Your task to perform on an android device: Search for pizza restaurants on Maps Image 0: 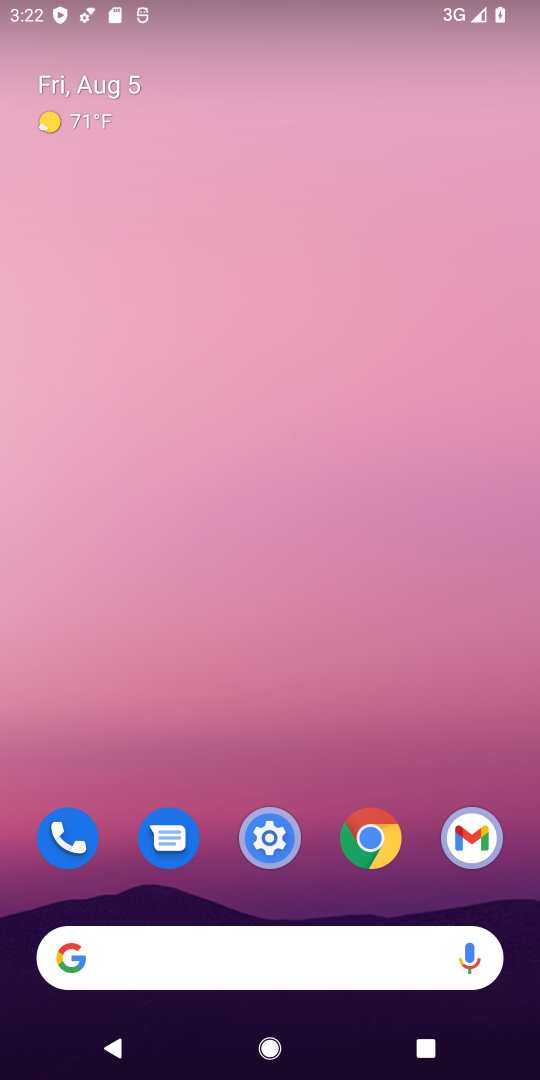
Step 0: drag from (291, 938) to (373, 344)
Your task to perform on an android device: Search for pizza restaurants on Maps Image 1: 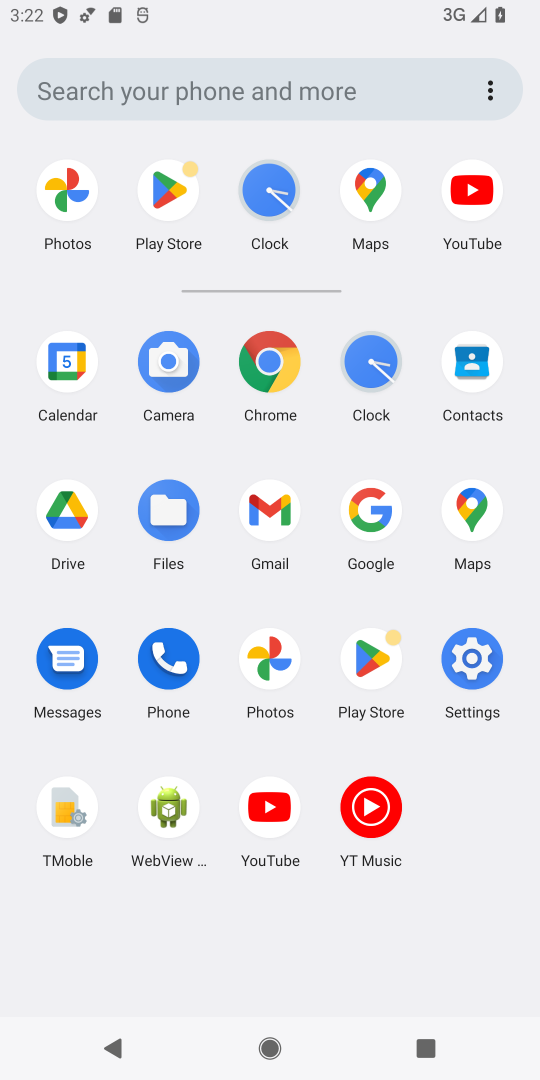
Step 1: click (356, 188)
Your task to perform on an android device: Search for pizza restaurants on Maps Image 2: 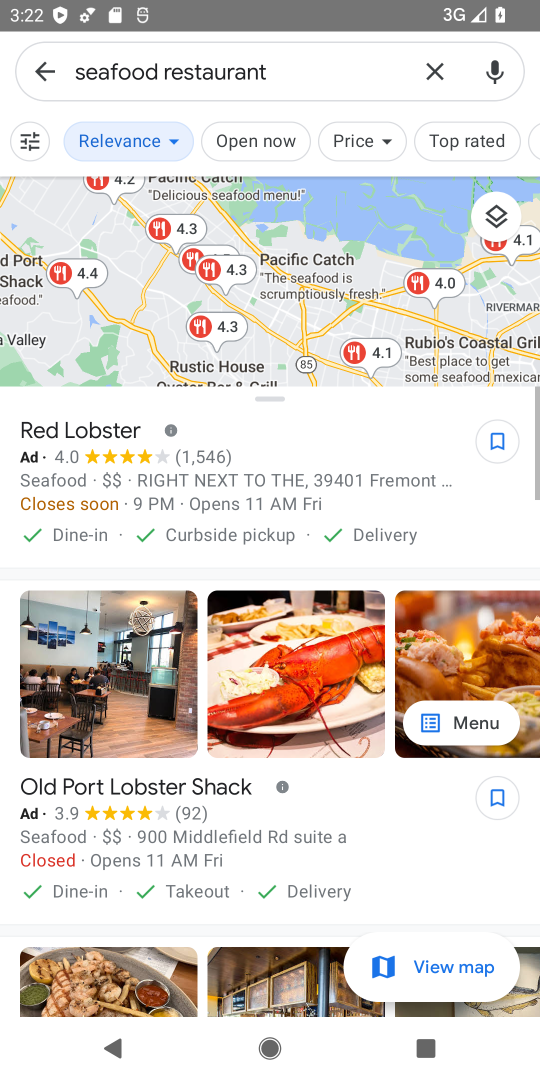
Step 2: click (440, 60)
Your task to perform on an android device: Search for pizza restaurants on Maps Image 3: 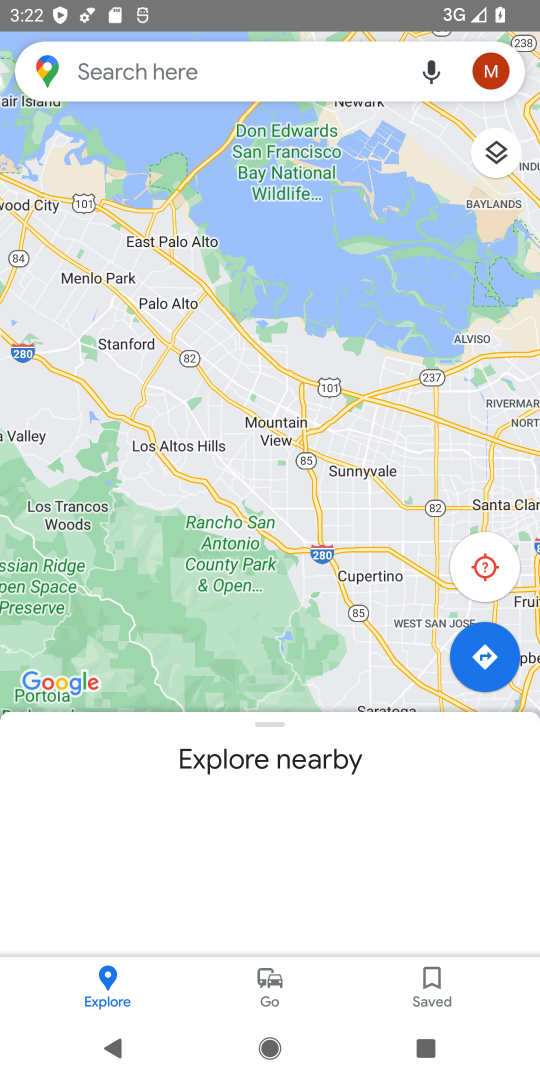
Step 3: click (283, 77)
Your task to perform on an android device: Search for pizza restaurants on Maps Image 4: 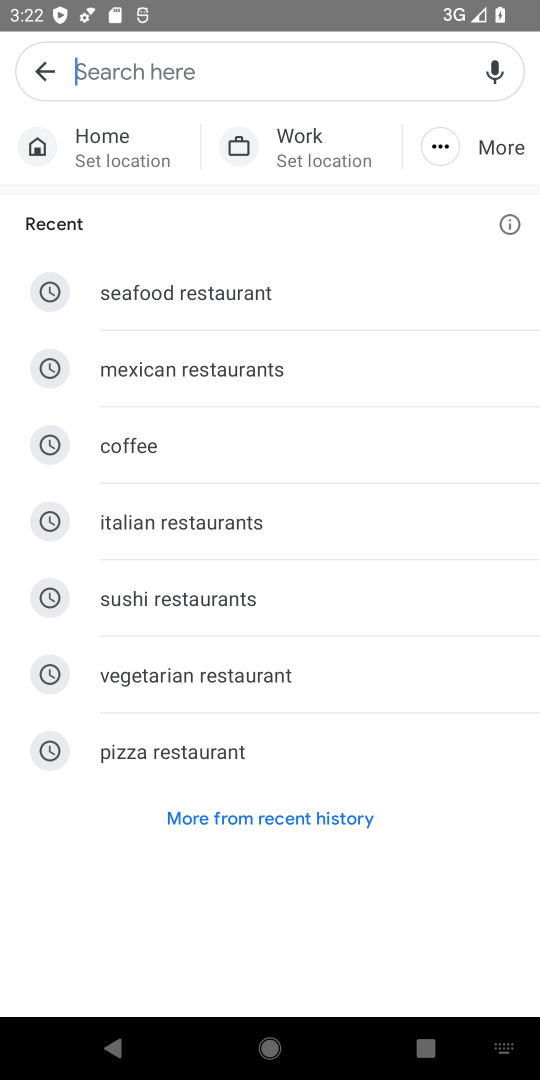
Step 4: click (195, 742)
Your task to perform on an android device: Search for pizza restaurants on Maps Image 5: 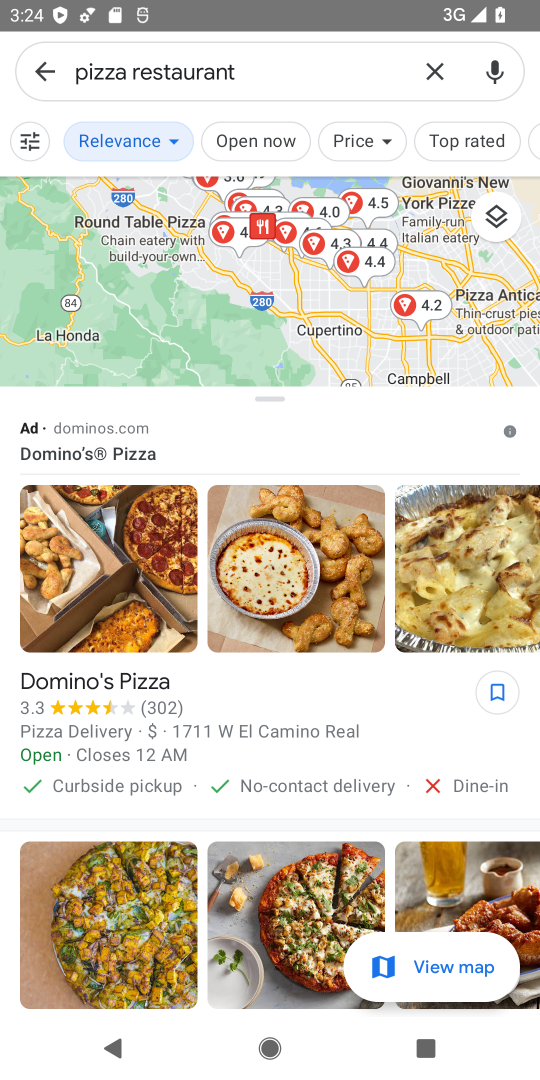
Step 5: task complete